Your task to perform on an android device: Empty the shopping cart on ebay.com. Search for energizer triple a on ebay.com, select the first entry, and add it to the cart. Image 0: 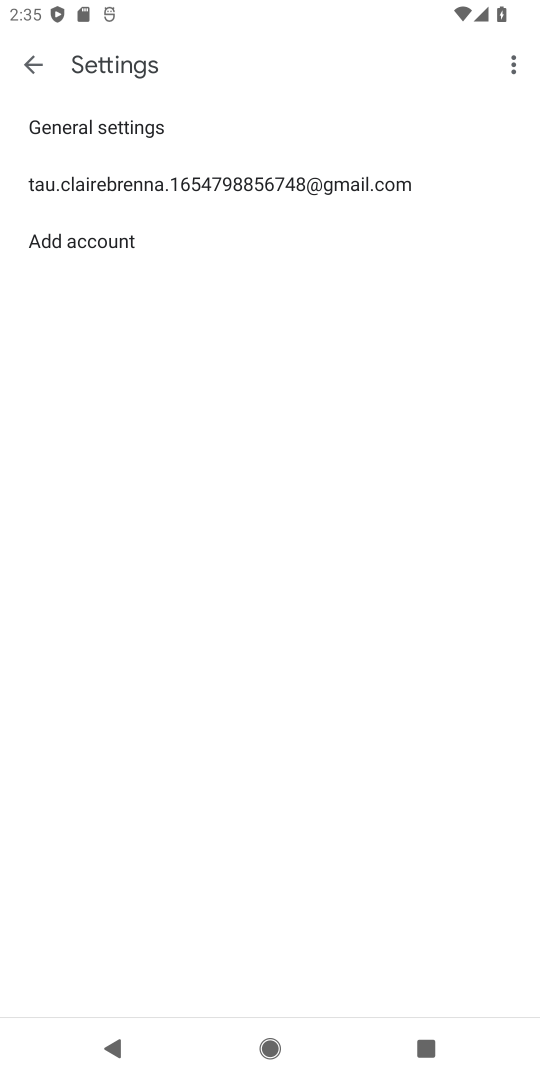
Step 0: press home button
Your task to perform on an android device: Empty the shopping cart on ebay.com. Search for energizer triple a on ebay.com, select the first entry, and add it to the cart. Image 1: 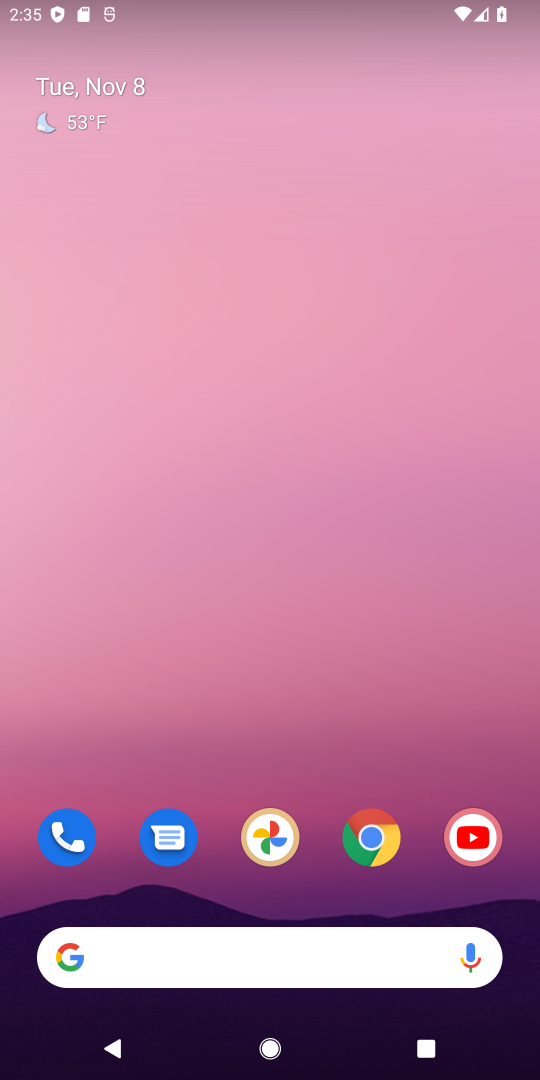
Step 1: click (352, 846)
Your task to perform on an android device: Empty the shopping cart on ebay.com. Search for energizer triple a on ebay.com, select the first entry, and add it to the cart. Image 2: 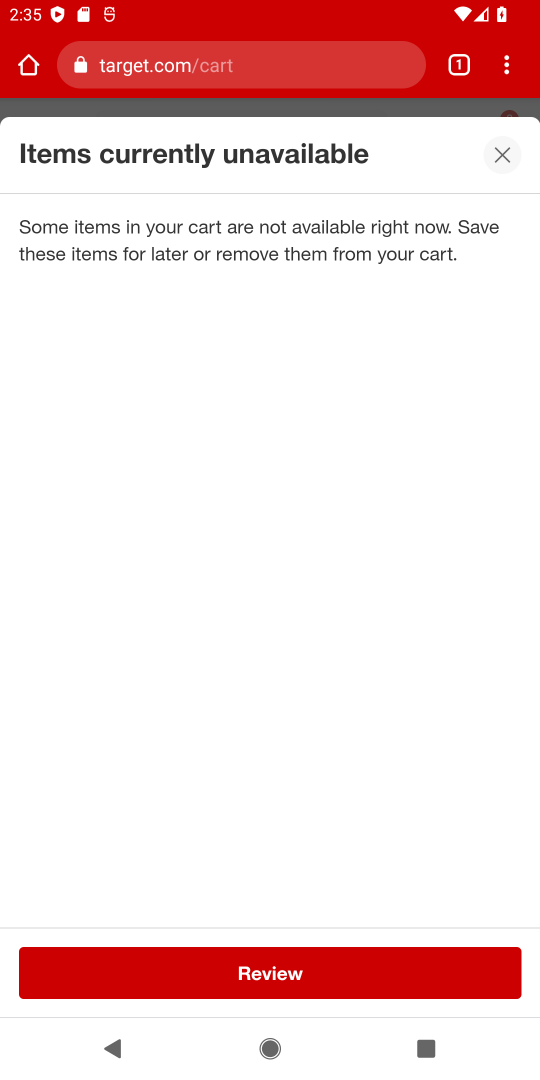
Step 2: click (227, 88)
Your task to perform on an android device: Empty the shopping cart on ebay.com. Search for energizer triple a on ebay.com, select the first entry, and add it to the cart. Image 3: 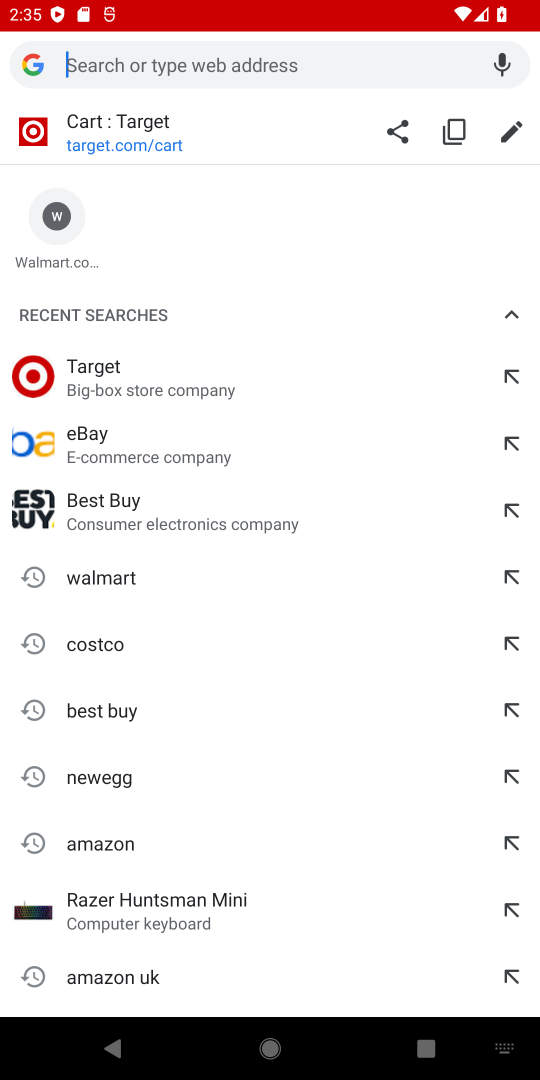
Step 3: type "ebay"
Your task to perform on an android device: Empty the shopping cart on ebay.com. Search for energizer triple a on ebay.com, select the first entry, and add it to the cart. Image 4: 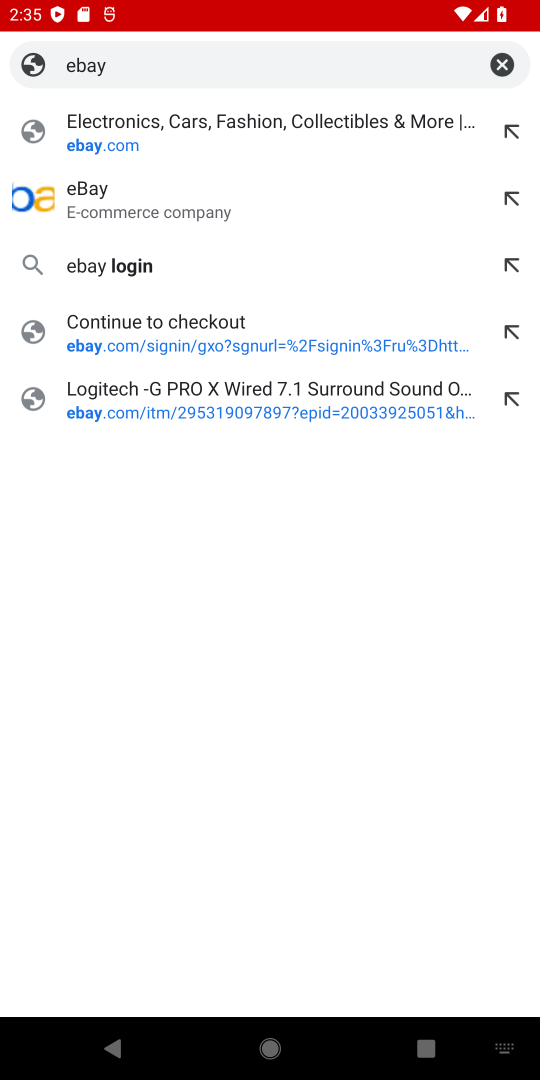
Step 4: click (87, 203)
Your task to perform on an android device: Empty the shopping cart on ebay.com. Search for energizer triple a on ebay.com, select the first entry, and add it to the cart. Image 5: 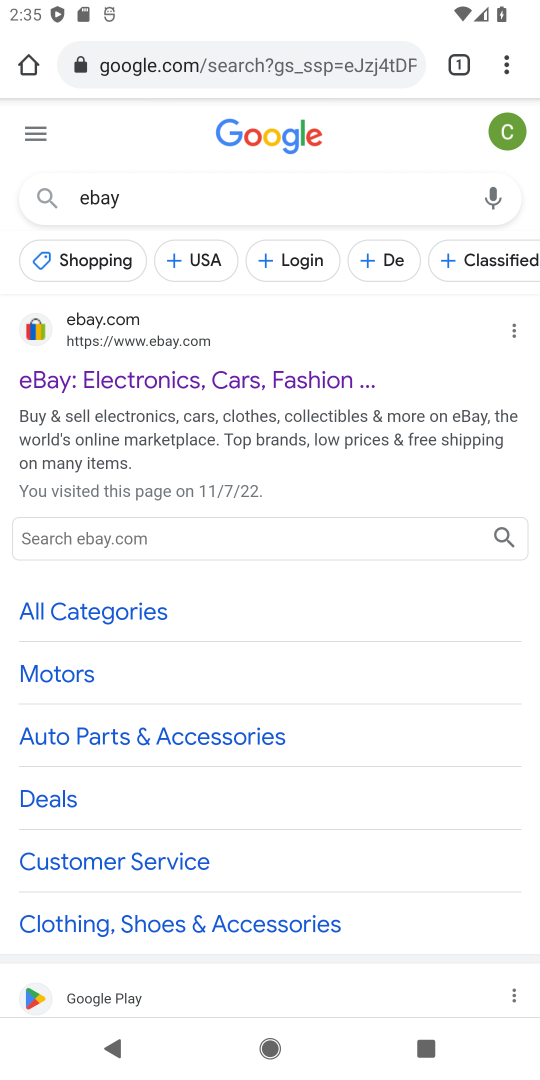
Step 5: click (130, 380)
Your task to perform on an android device: Empty the shopping cart on ebay.com. Search for energizer triple a on ebay.com, select the first entry, and add it to the cart. Image 6: 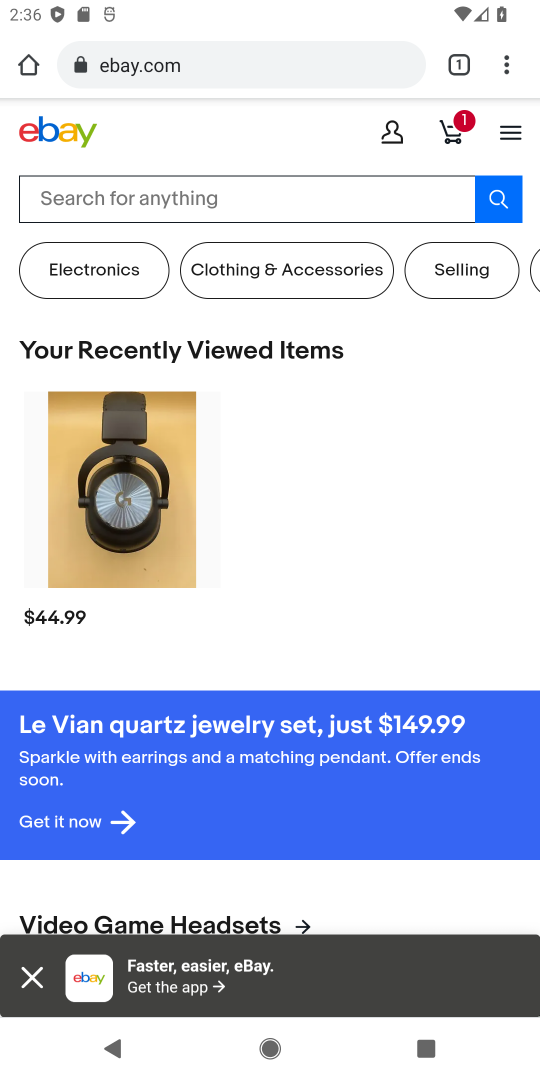
Step 6: click (34, 977)
Your task to perform on an android device: Empty the shopping cart on ebay.com. Search for energizer triple a on ebay.com, select the first entry, and add it to the cart. Image 7: 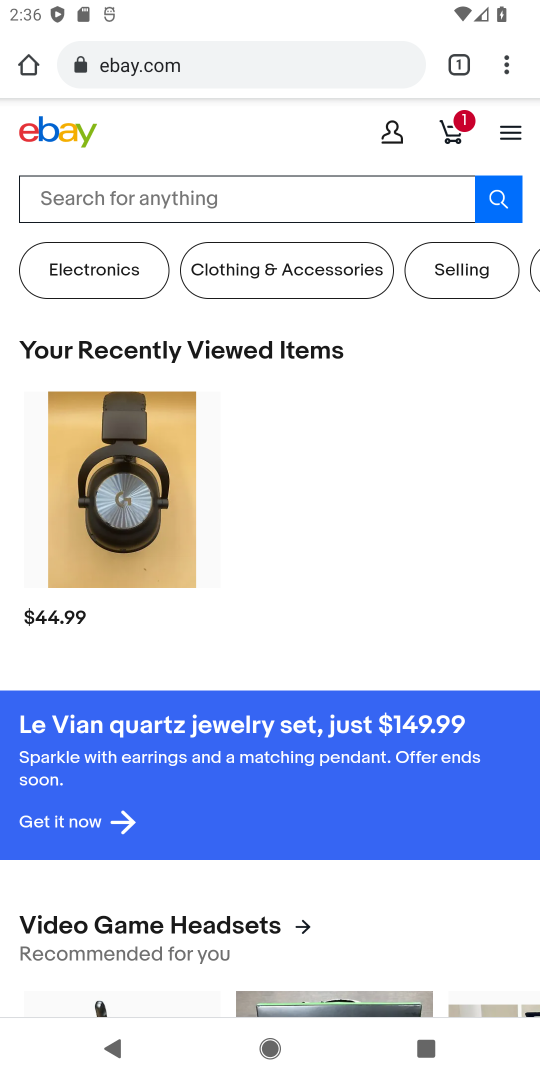
Step 7: click (164, 202)
Your task to perform on an android device: Empty the shopping cart on ebay.com. Search for energizer triple a on ebay.com, select the first entry, and add it to the cart. Image 8: 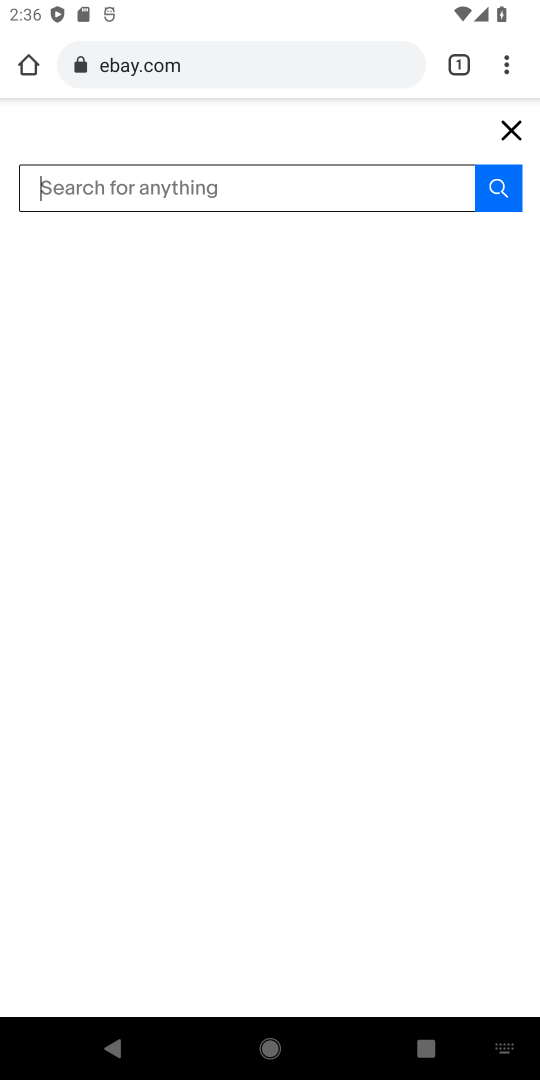
Step 8: type "shooping cart"
Your task to perform on an android device: Empty the shopping cart on ebay.com. Search for energizer triple a on ebay.com, select the first entry, and add it to the cart. Image 9: 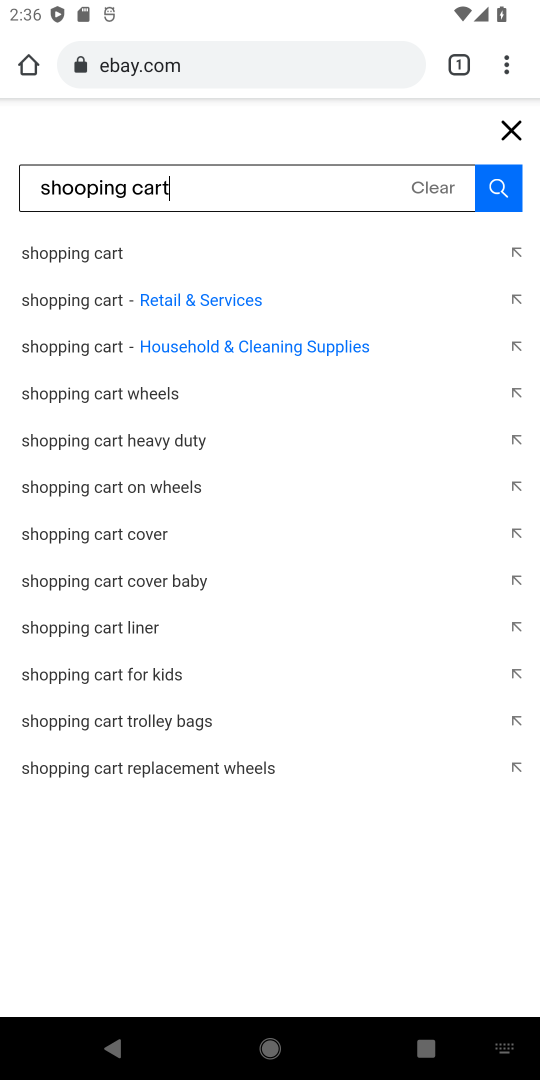
Step 9: click (30, 252)
Your task to perform on an android device: Empty the shopping cart on ebay.com. Search for energizer triple a on ebay.com, select the first entry, and add it to the cart. Image 10: 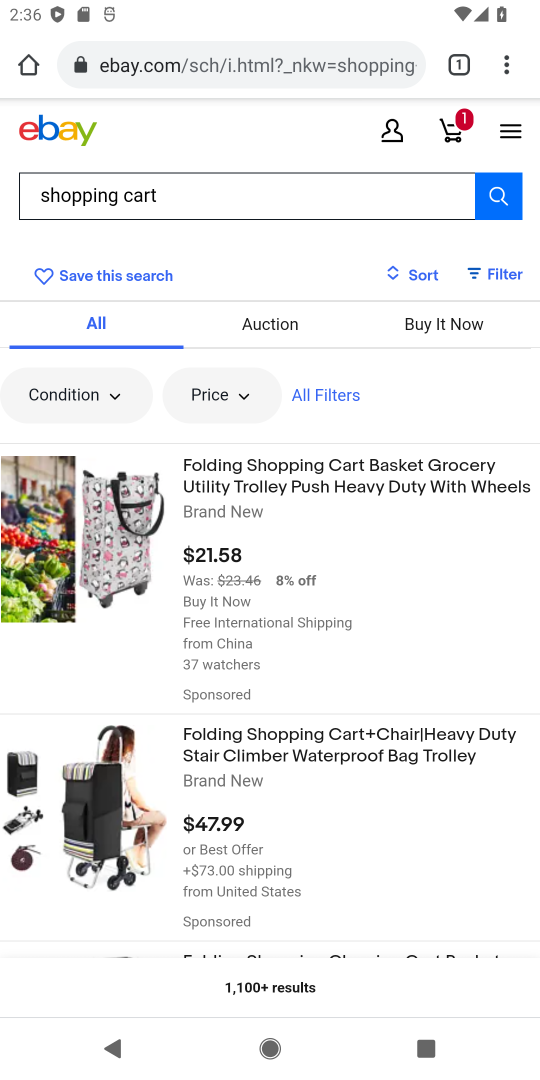
Step 10: drag from (325, 699) to (296, 445)
Your task to perform on an android device: Empty the shopping cart on ebay.com. Search for energizer triple a on ebay.com, select the first entry, and add it to the cart. Image 11: 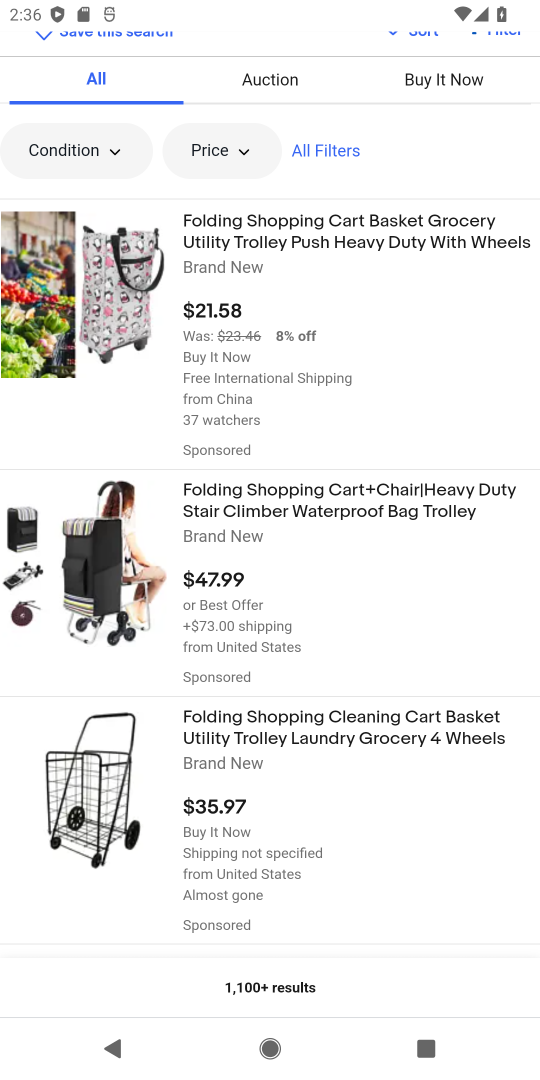
Step 11: click (95, 604)
Your task to perform on an android device: Empty the shopping cart on ebay.com. Search for energizer triple a on ebay.com, select the first entry, and add it to the cart. Image 12: 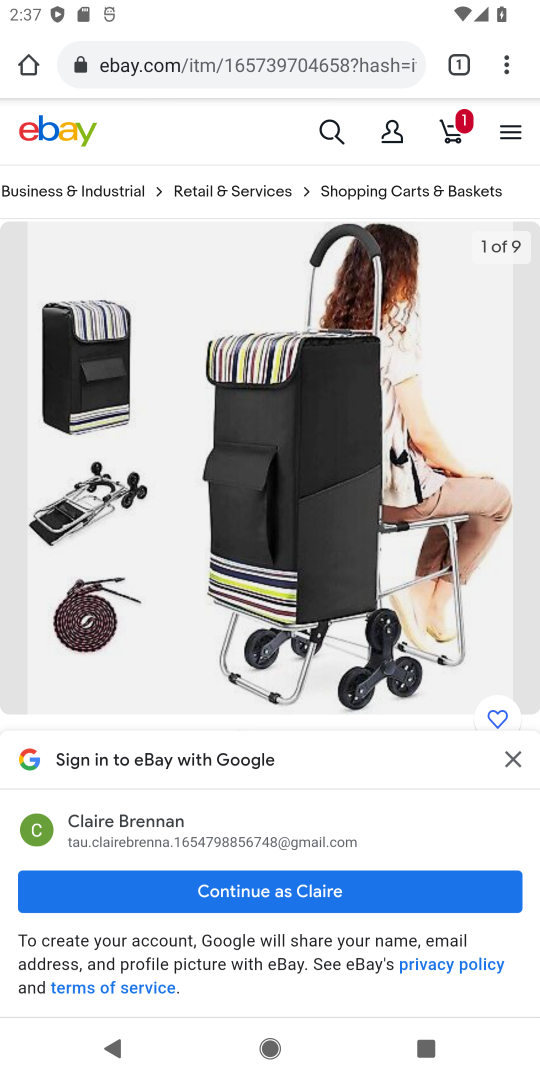
Step 12: click (514, 753)
Your task to perform on an android device: Empty the shopping cart on ebay.com. Search for energizer triple a on ebay.com, select the first entry, and add it to the cart. Image 13: 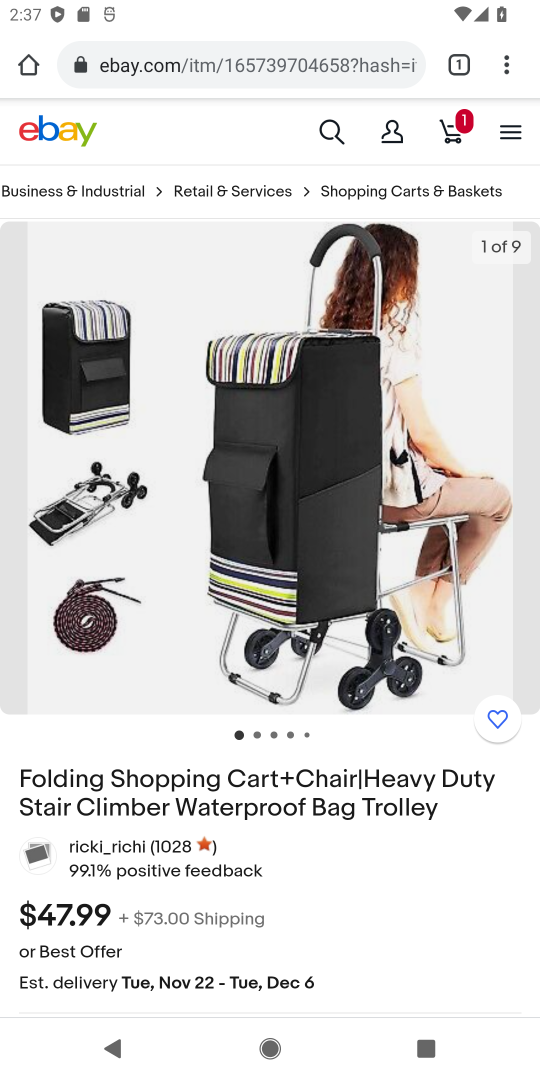
Step 13: drag from (104, 875) to (142, 416)
Your task to perform on an android device: Empty the shopping cart on ebay.com. Search for energizer triple a on ebay.com, select the first entry, and add it to the cart. Image 14: 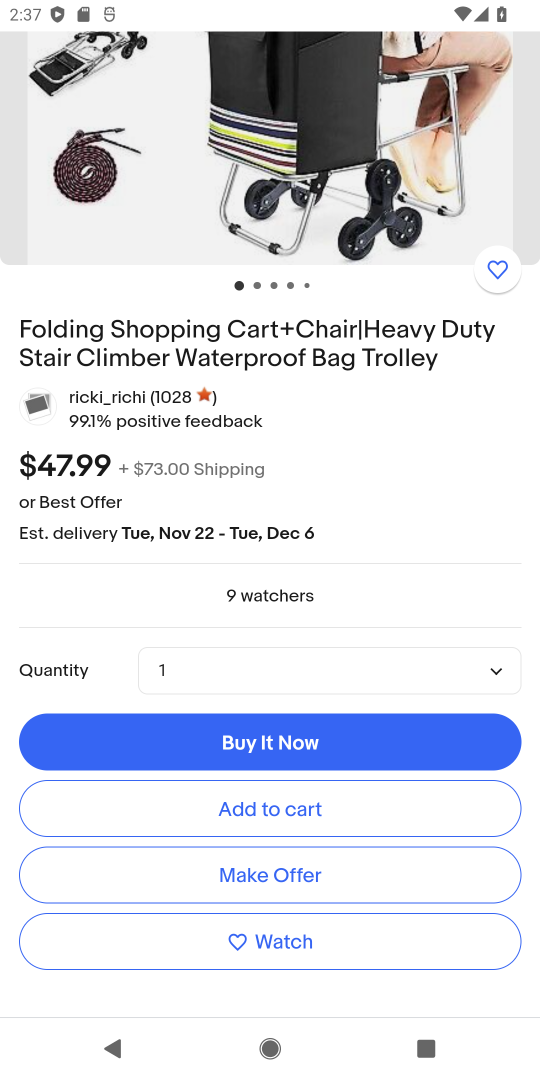
Step 14: click (285, 811)
Your task to perform on an android device: Empty the shopping cart on ebay.com. Search for energizer triple a on ebay.com, select the first entry, and add it to the cart. Image 15: 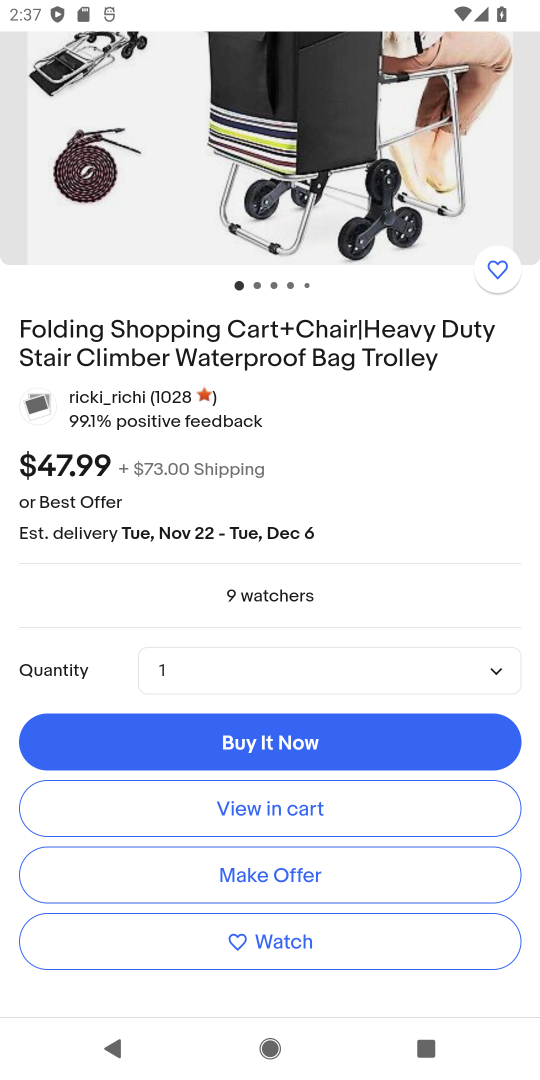
Step 15: click (283, 808)
Your task to perform on an android device: Empty the shopping cart on ebay.com. Search for energizer triple a on ebay.com, select the first entry, and add it to the cart. Image 16: 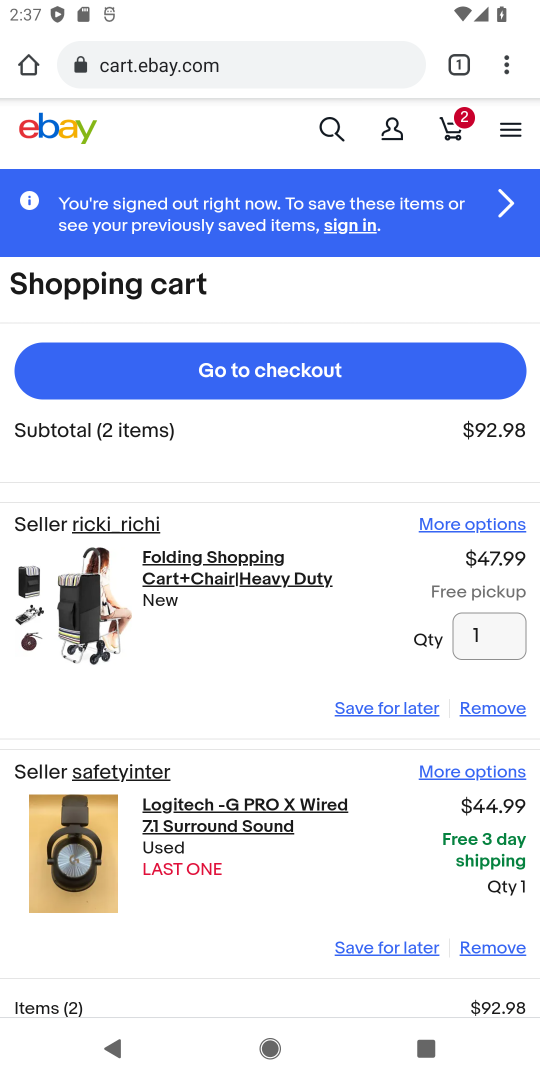
Step 16: click (324, 121)
Your task to perform on an android device: Empty the shopping cart on ebay.com. Search for energizer triple a on ebay.com, select the first entry, and add it to the cart. Image 17: 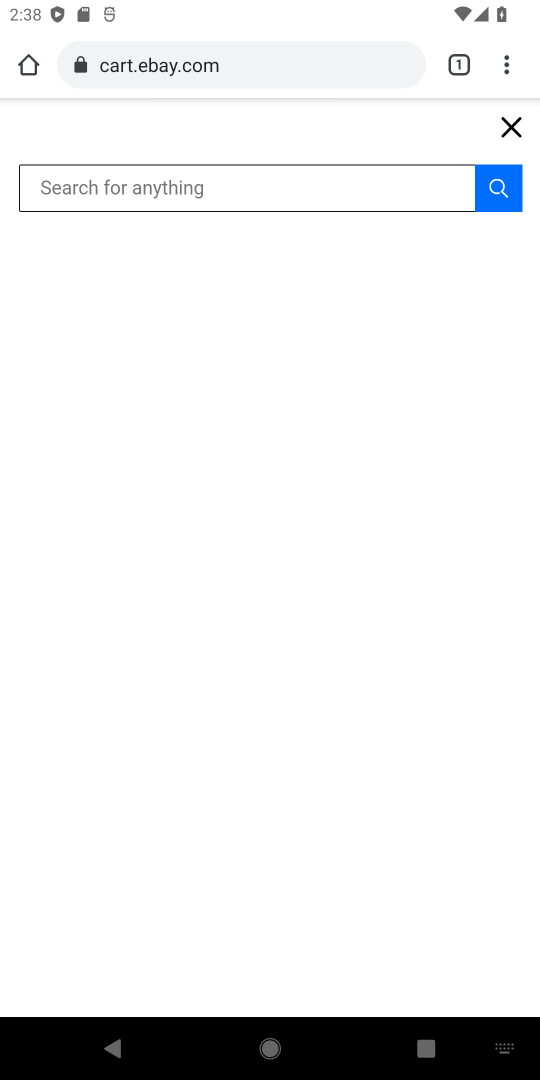
Step 17: type "energizer triple"
Your task to perform on an android device: Empty the shopping cart on ebay.com. Search for energizer triple a on ebay.com, select the first entry, and add it to the cart. Image 18: 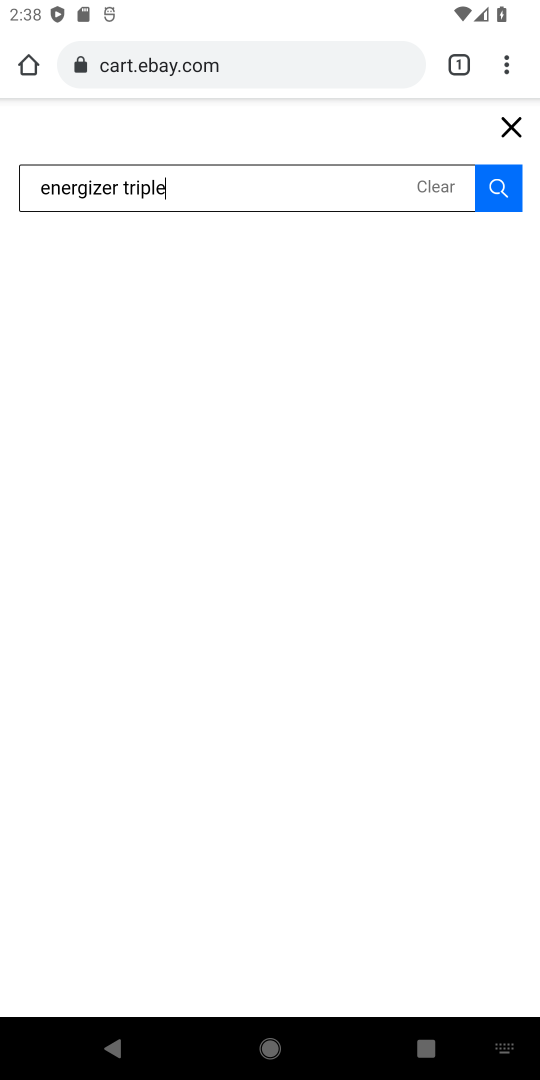
Step 18: click (490, 181)
Your task to perform on an android device: Empty the shopping cart on ebay.com. Search for energizer triple a on ebay.com, select the first entry, and add it to the cart. Image 19: 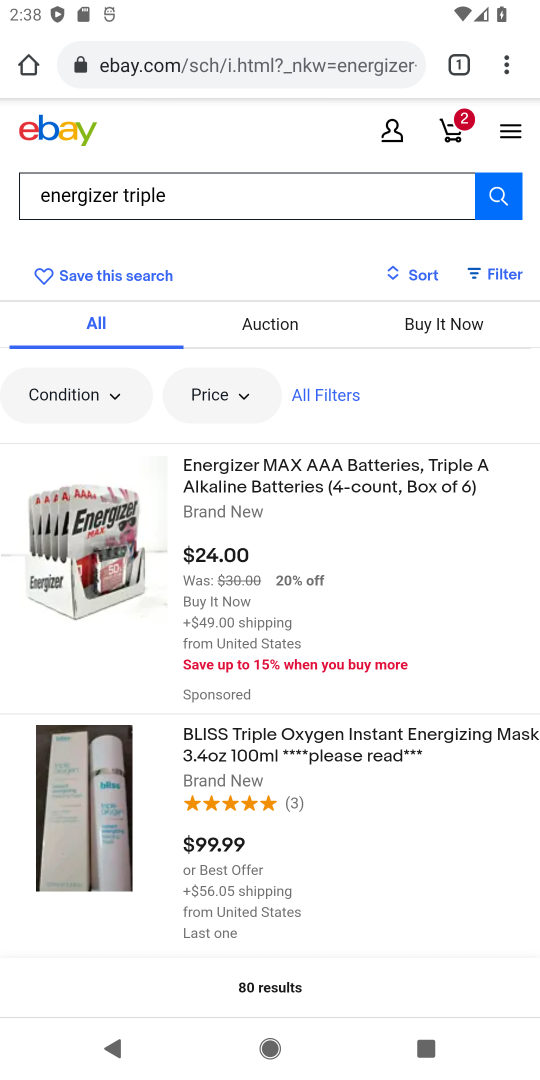
Step 19: drag from (329, 861) to (323, 485)
Your task to perform on an android device: Empty the shopping cart on ebay.com. Search for energizer triple a on ebay.com, select the first entry, and add it to the cart. Image 20: 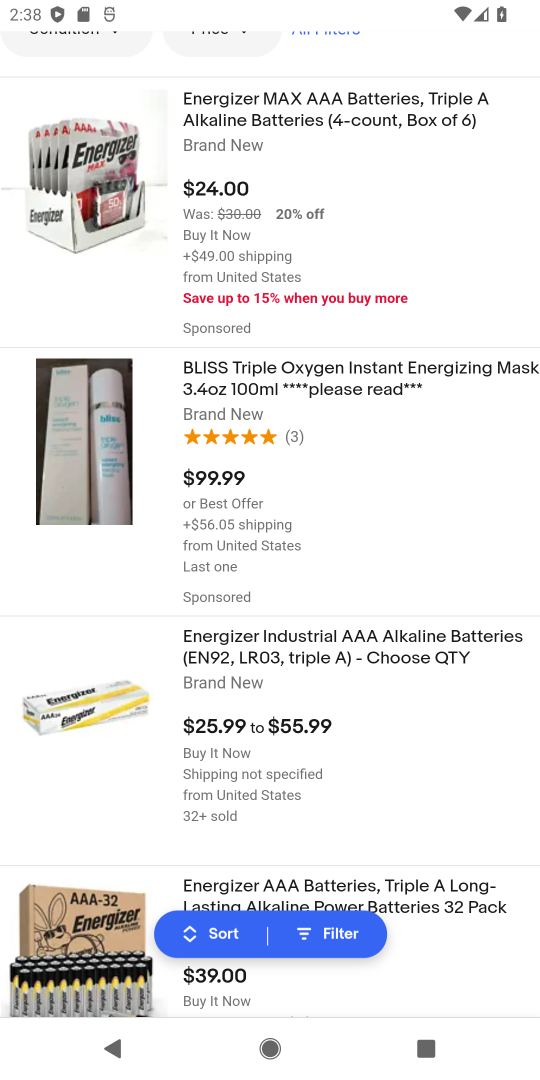
Step 20: click (331, 885)
Your task to perform on an android device: Empty the shopping cart on ebay.com. Search for energizer triple a on ebay.com, select the first entry, and add it to the cart. Image 21: 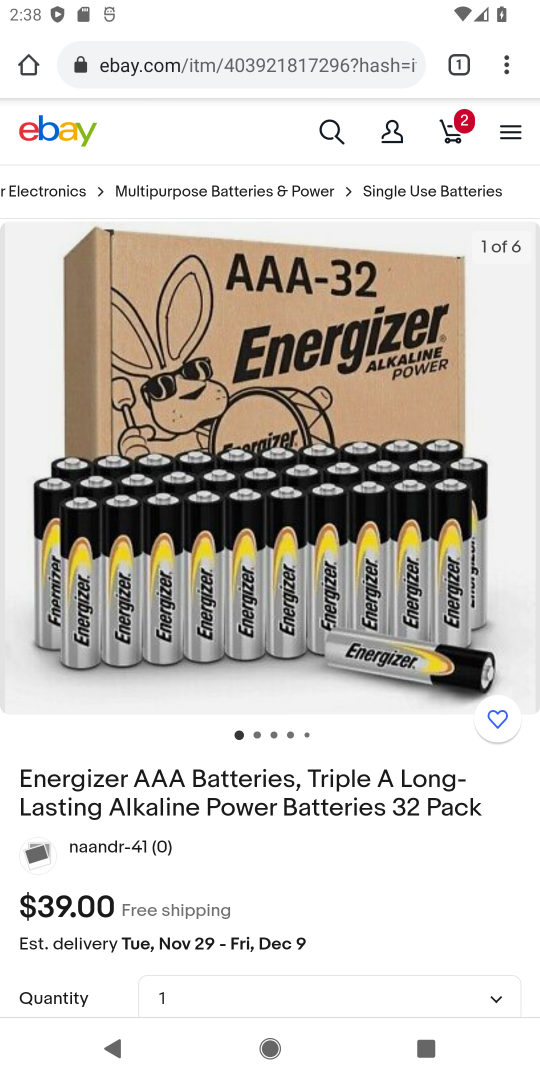
Step 21: drag from (189, 740) to (173, 416)
Your task to perform on an android device: Empty the shopping cart on ebay.com. Search for energizer triple a on ebay.com, select the first entry, and add it to the cart. Image 22: 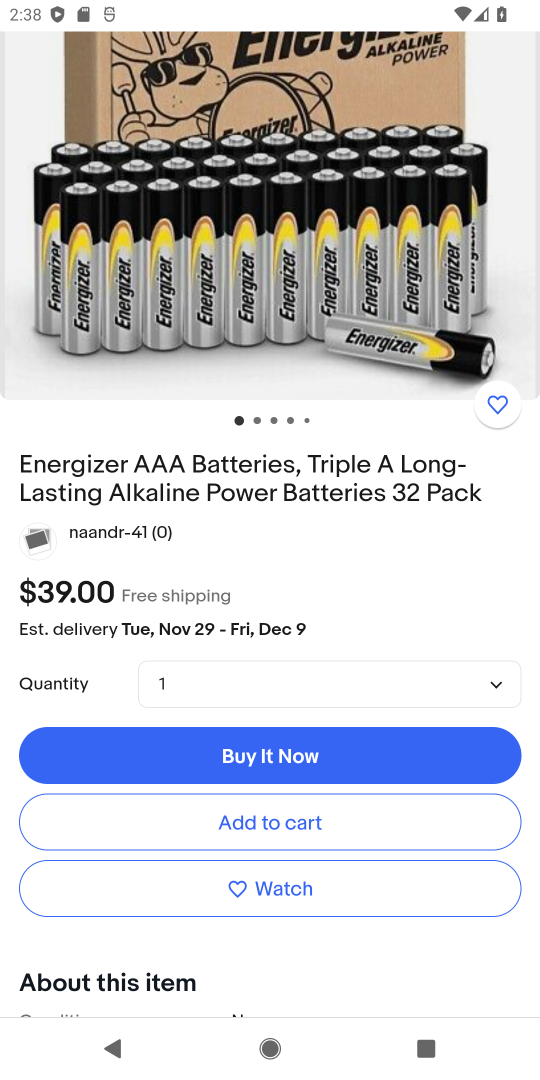
Step 22: click (301, 825)
Your task to perform on an android device: Empty the shopping cart on ebay.com. Search for energizer triple a on ebay.com, select the first entry, and add it to the cart. Image 23: 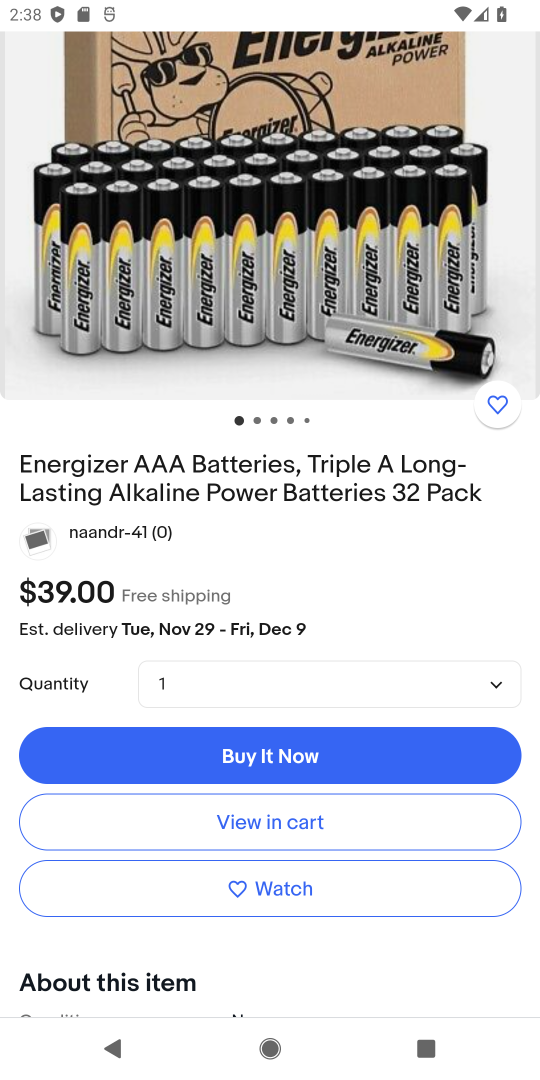
Step 23: click (275, 827)
Your task to perform on an android device: Empty the shopping cart on ebay.com. Search for energizer triple a on ebay.com, select the first entry, and add it to the cart. Image 24: 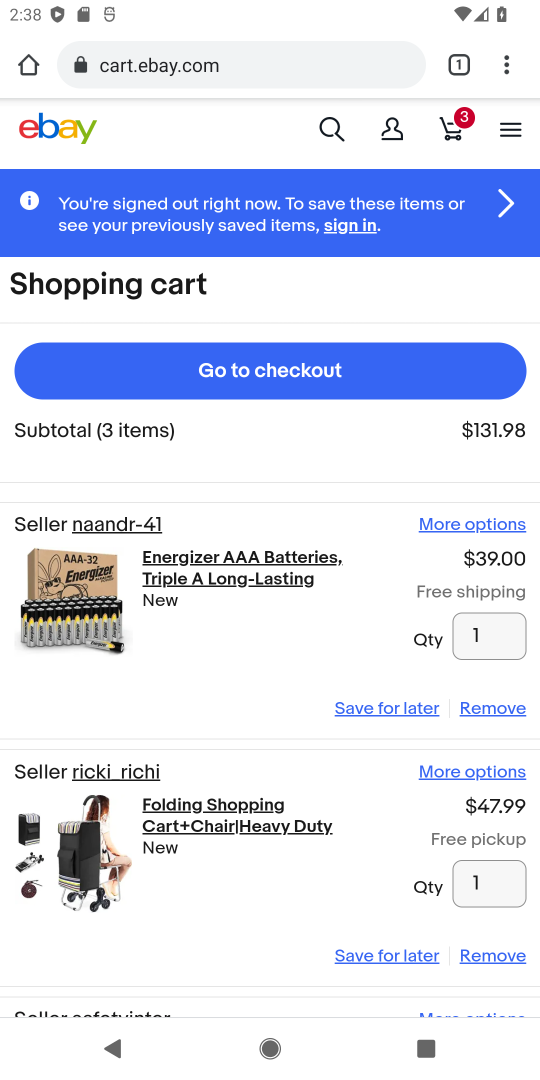
Step 24: drag from (224, 665) to (207, 442)
Your task to perform on an android device: Empty the shopping cart on ebay.com. Search for energizer triple a on ebay.com, select the first entry, and add it to the cart. Image 25: 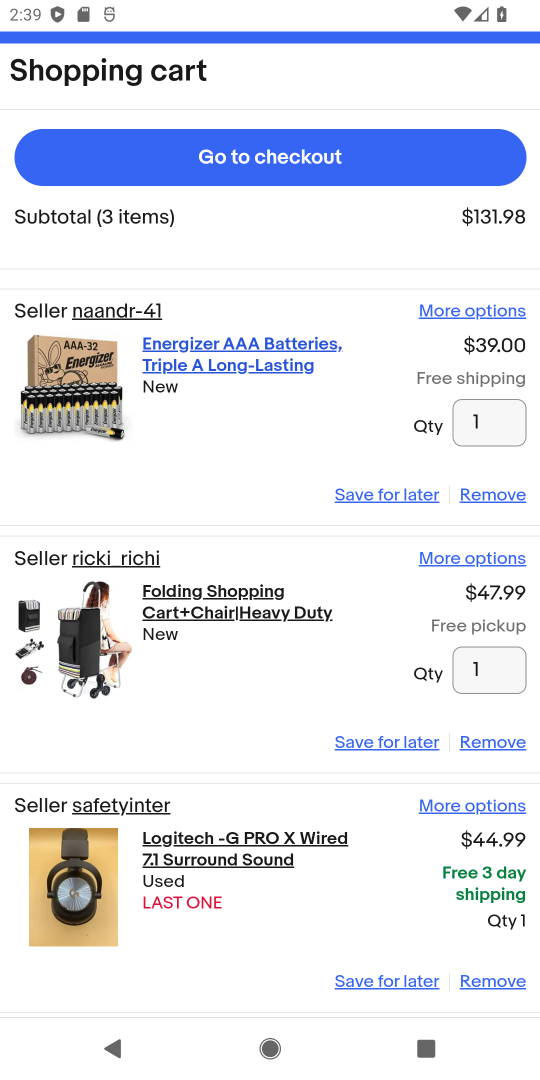
Step 25: drag from (290, 839) to (326, 526)
Your task to perform on an android device: Empty the shopping cart on ebay.com. Search for energizer triple a on ebay.com, select the first entry, and add it to the cart. Image 26: 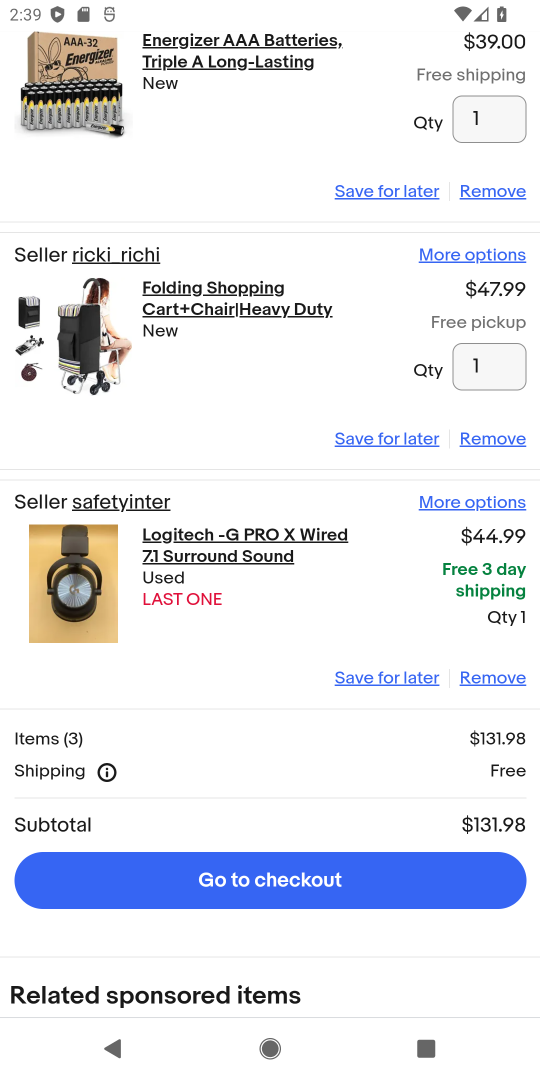
Step 26: click (215, 45)
Your task to perform on an android device: Empty the shopping cart on ebay.com. Search for energizer triple a on ebay.com, select the first entry, and add it to the cart. Image 27: 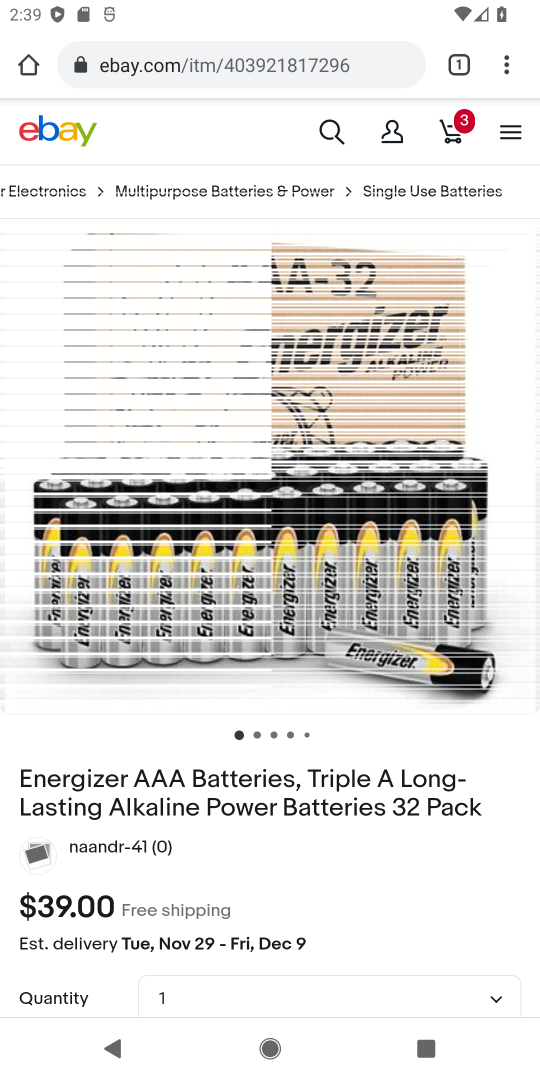
Step 27: drag from (323, 933) to (287, 233)
Your task to perform on an android device: Empty the shopping cart on ebay.com. Search for energizer triple a on ebay.com, select the first entry, and add it to the cart. Image 28: 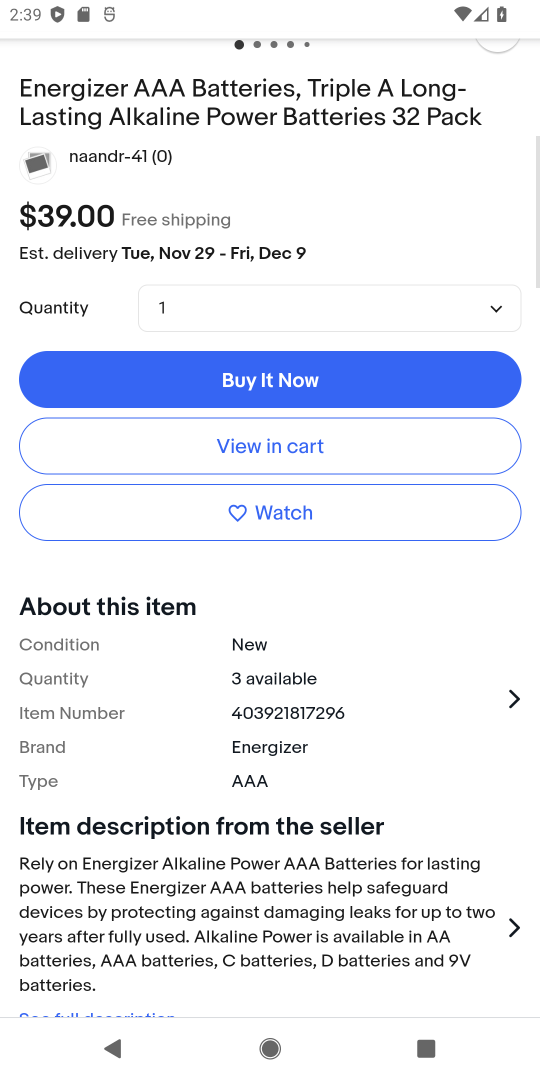
Step 28: drag from (256, 844) to (284, 428)
Your task to perform on an android device: Empty the shopping cart on ebay.com. Search for energizer triple a on ebay.com, select the first entry, and add it to the cart. Image 29: 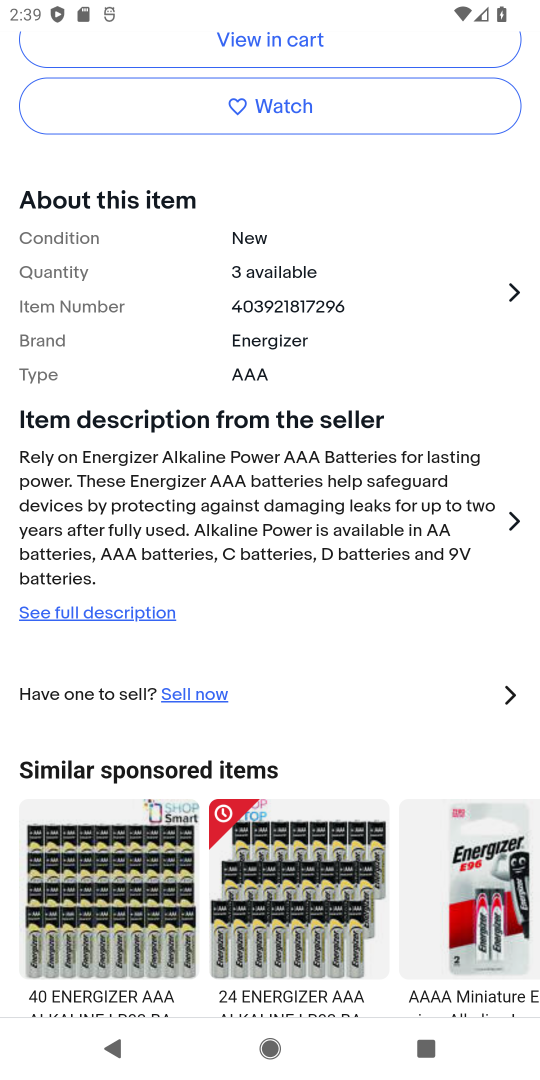
Step 29: click (277, 47)
Your task to perform on an android device: Empty the shopping cart on ebay.com. Search for energizer triple a on ebay.com, select the first entry, and add it to the cart. Image 30: 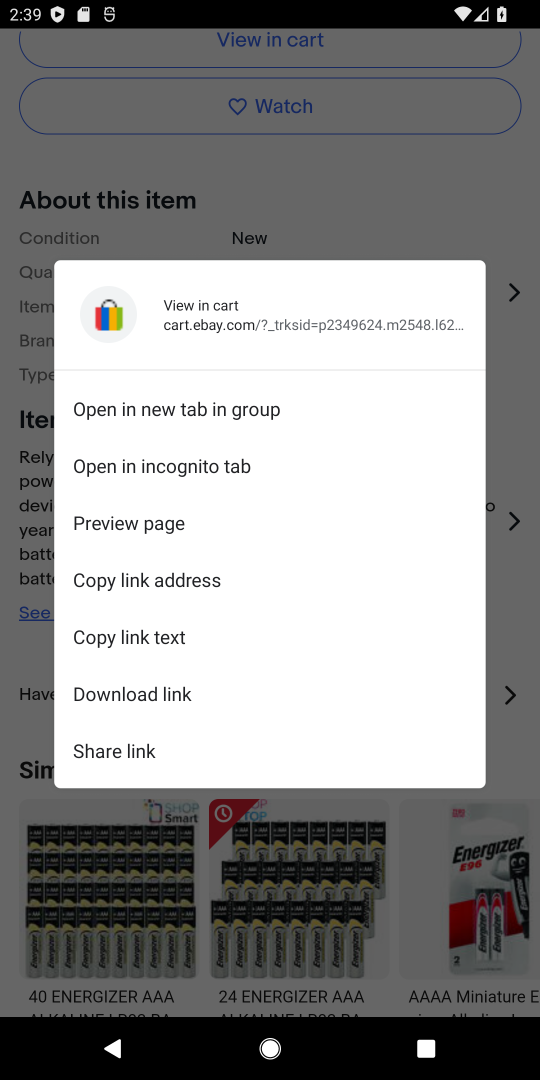
Step 30: click (526, 389)
Your task to perform on an android device: Empty the shopping cart on ebay.com. Search for energizer triple a on ebay.com, select the first entry, and add it to the cart. Image 31: 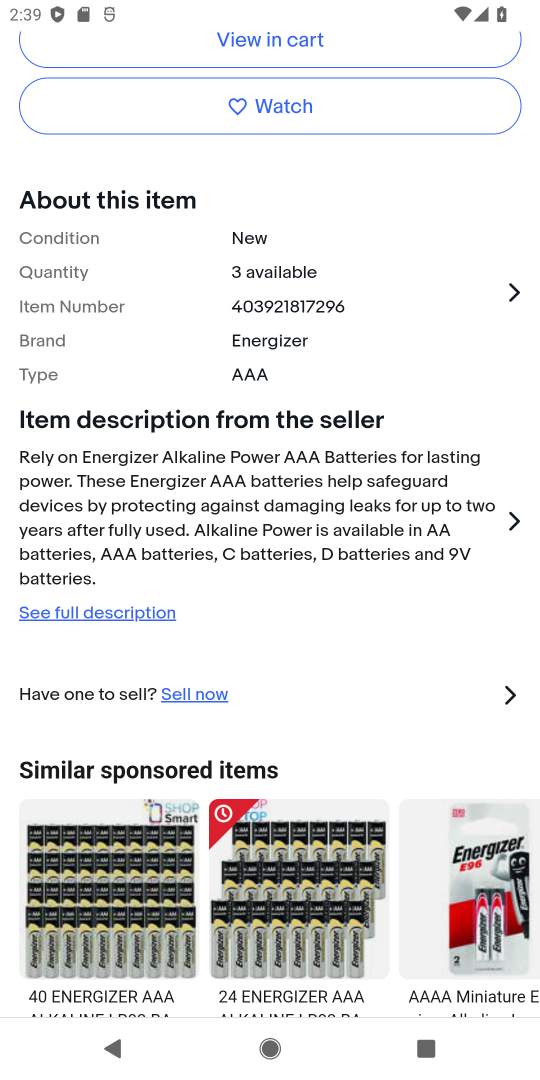
Step 31: drag from (308, 215) to (366, 806)
Your task to perform on an android device: Empty the shopping cart on ebay.com. Search for energizer triple a on ebay.com, select the first entry, and add it to the cart. Image 32: 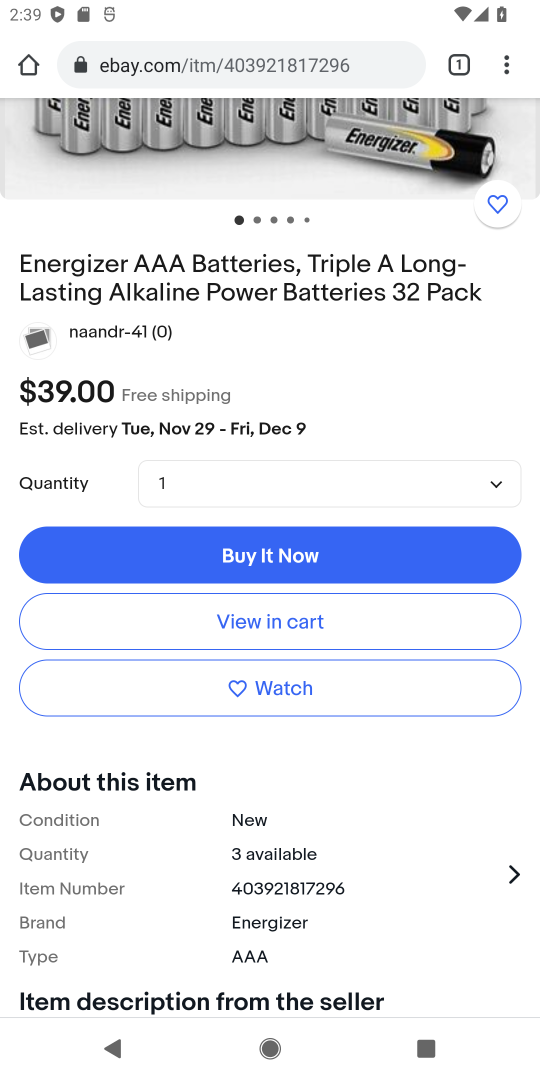
Step 32: click (272, 237)
Your task to perform on an android device: Empty the shopping cart on ebay.com. Search for energizer triple a on ebay.com, select the first entry, and add it to the cart. Image 33: 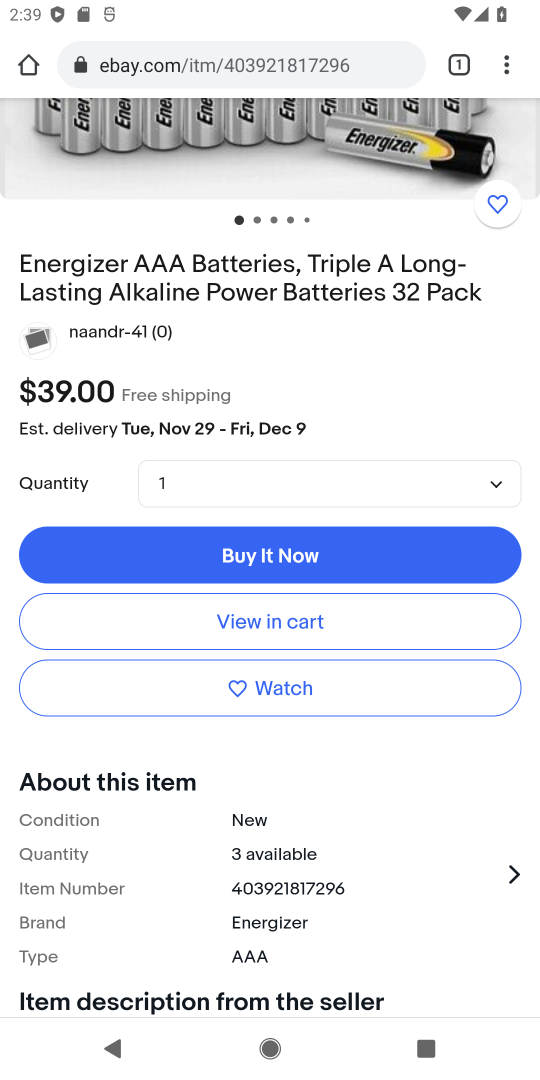
Step 33: click (270, 634)
Your task to perform on an android device: Empty the shopping cart on ebay.com. Search for energizer triple a on ebay.com, select the first entry, and add it to the cart. Image 34: 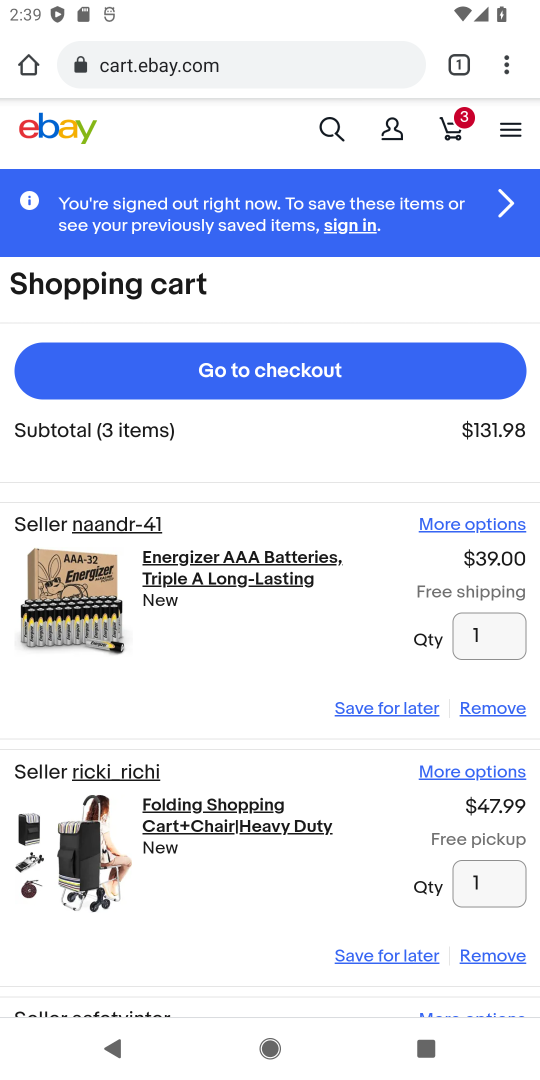
Step 34: task complete